Your task to perform on an android device: Open wifi settings Image 0: 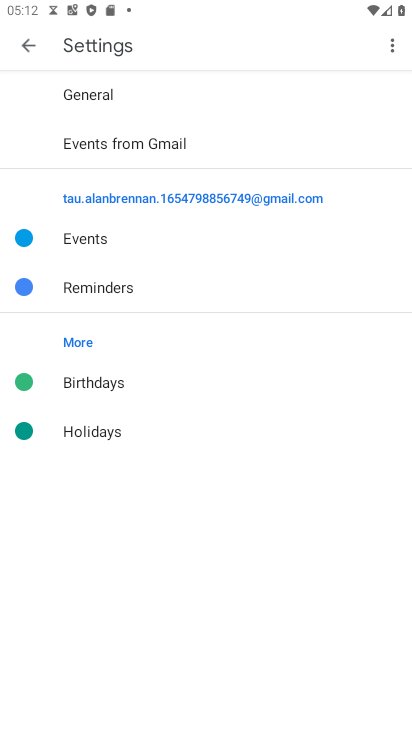
Step 0: press home button
Your task to perform on an android device: Open wifi settings Image 1: 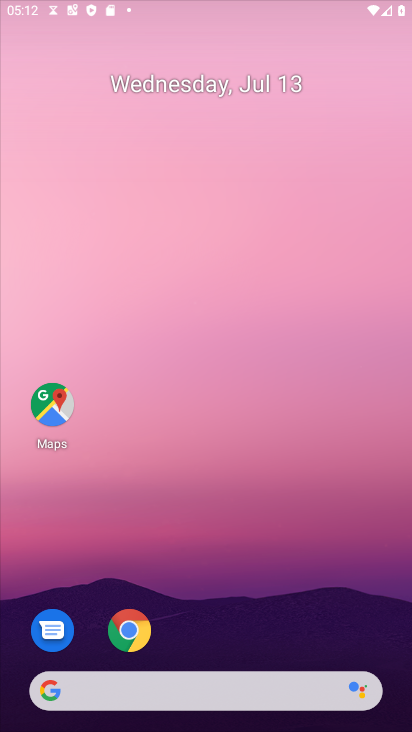
Step 1: drag from (225, 341) to (232, 3)
Your task to perform on an android device: Open wifi settings Image 2: 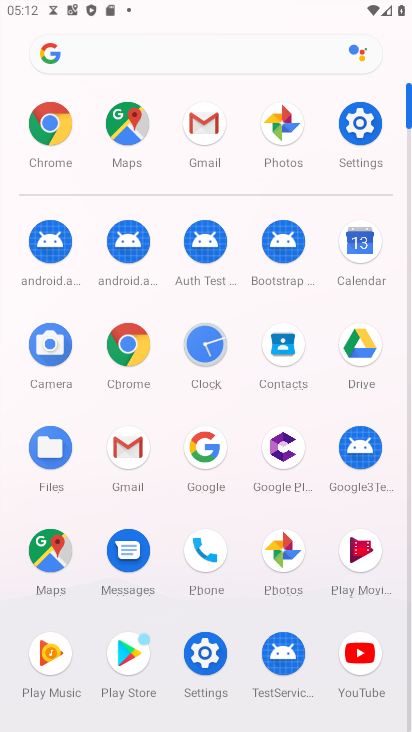
Step 2: click (368, 111)
Your task to perform on an android device: Open wifi settings Image 3: 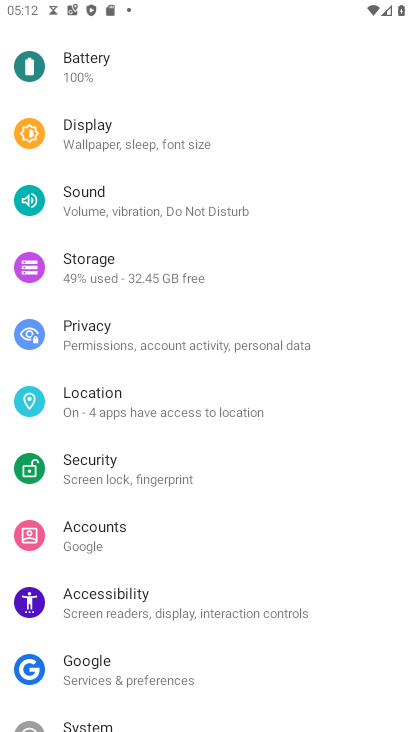
Step 3: drag from (156, 172) to (224, 715)
Your task to perform on an android device: Open wifi settings Image 4: 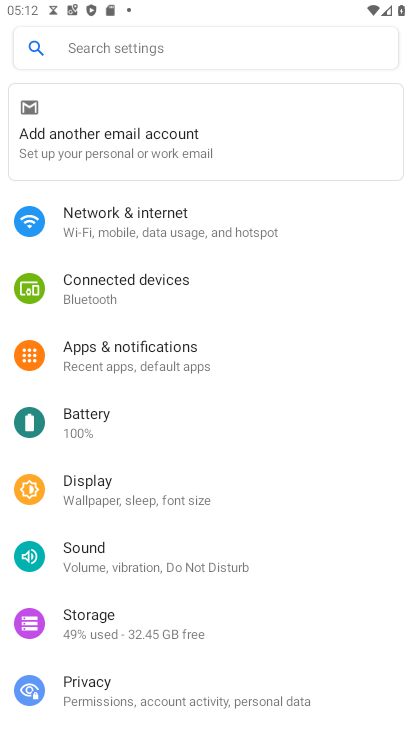
Step 4: click (175, 231)
Your task to perform on an android device: Open wifi settings Image 5: 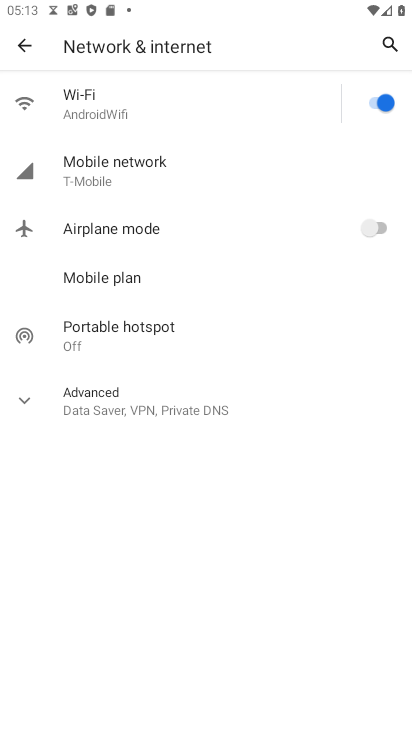
Step 5: click (136, 106)
Your task to perform on an android device: Open wifi settings Image 6: 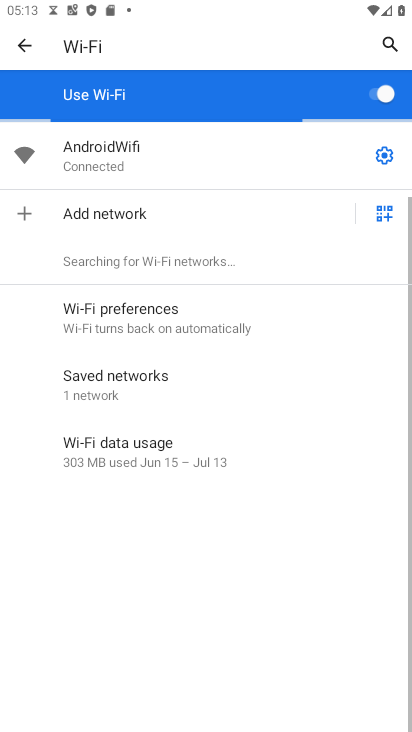
Step 6: task complete